Your task to perform on an android device: stop showing notifications on the lock screen Image 0: 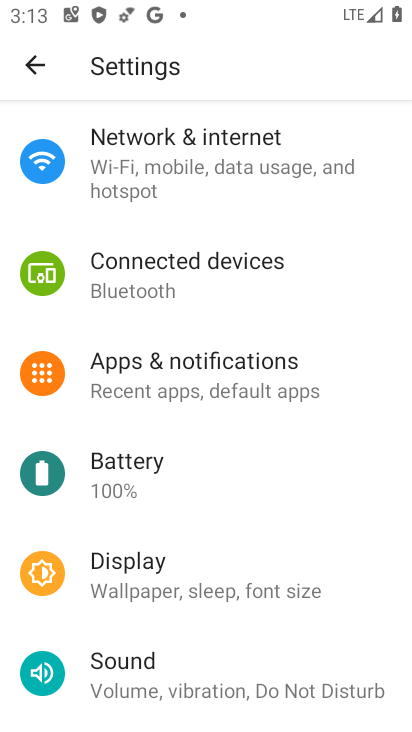
Step 0: press home button
Your task to perform on an android device: stop showing notifications on the lock screen Image 1: 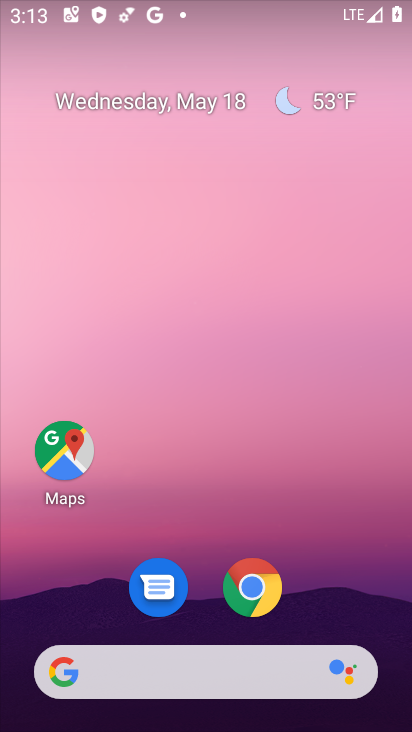
Step 1: drag from (189, 692) to (269, 220)
Your task to perform on an android device: stop showing notifications on the lock screen Image 2: 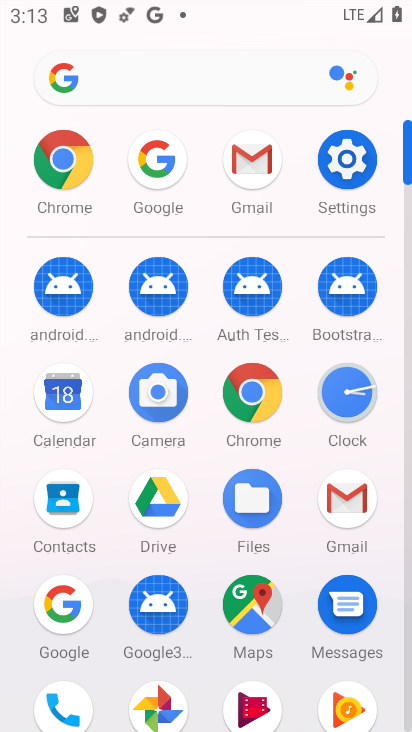
Step 2: click (367, 185)
Your task to perform on an android device: stop showing notifications on the lock screen Image 3: 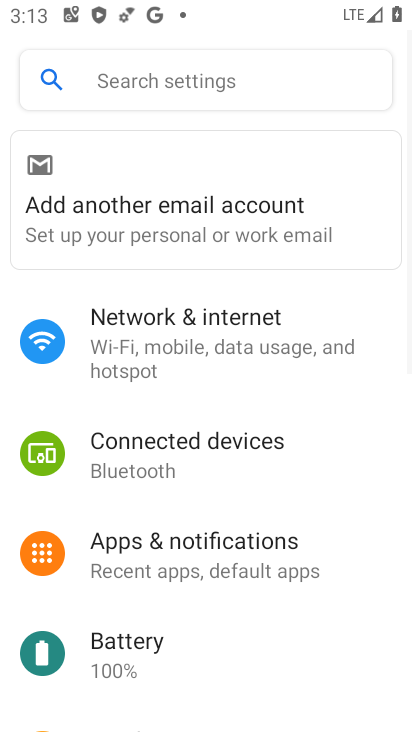
Step 3: click (208, 555)
Your task to perform on an android device: stop showing notifications on the lock screen Image 4: 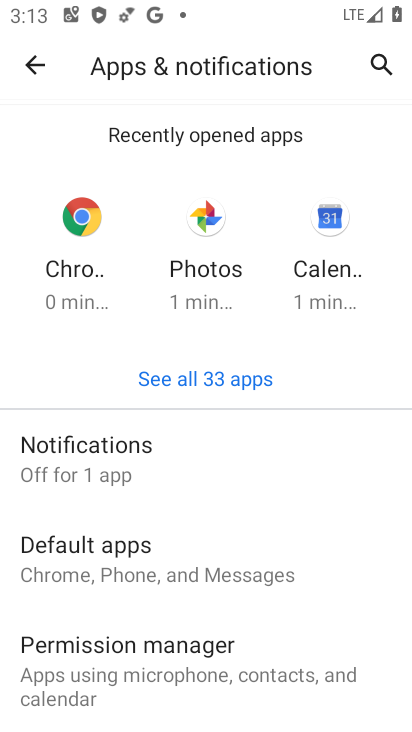
Step 4: click (180, 459)
Your task to perform on an android device: stop showing notifications on the lock screen Image 5: 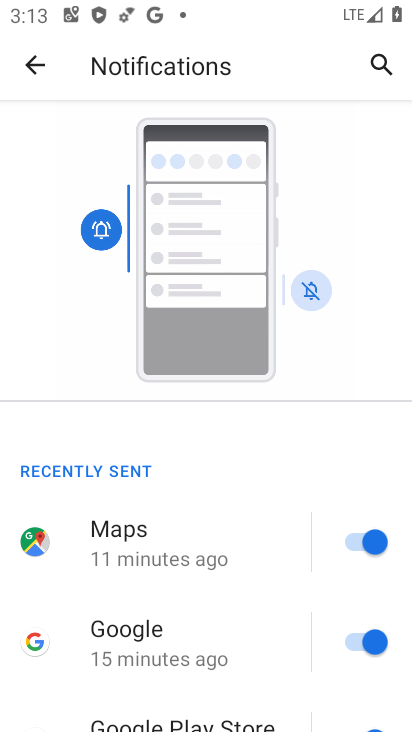
Step 5: drag from (196, 521) to (221, 263)
Your task to perform on an android device: stop showing notifications on the lock screen Image 6: 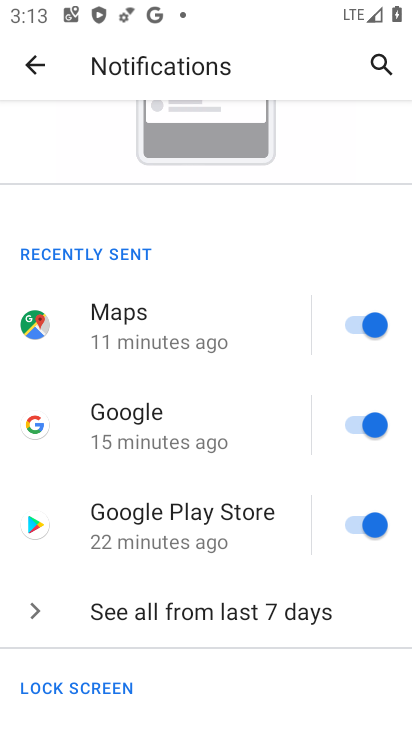
Step 6: drag from (176, 469) to (215, 228)
Your task to perform on an android device: stop showing notifications on the lock screen Image 7: 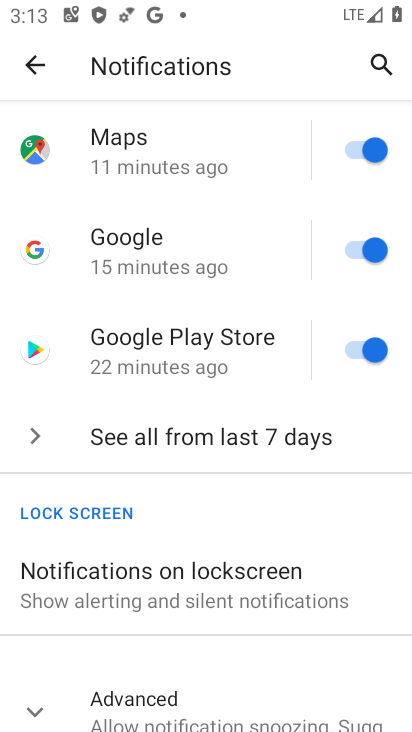
Step 7: click (164, 600)
Your task to perform on an android device: stop showing notifications on the lock screen Image 8: 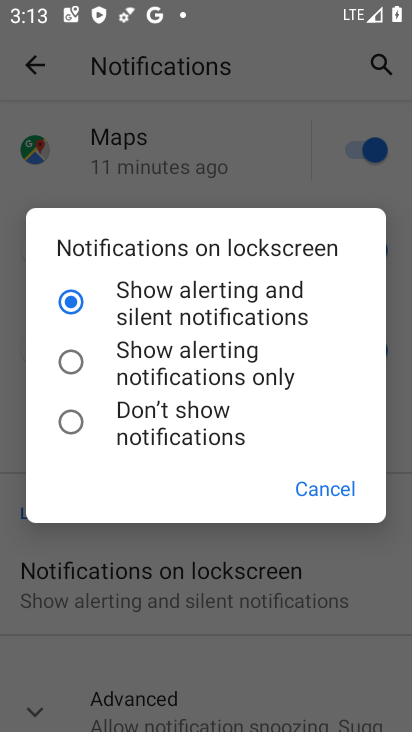
Step 8: click (59, 408)
Your task to perform on an android device: stop showing notifications on the lock screen Image 9: 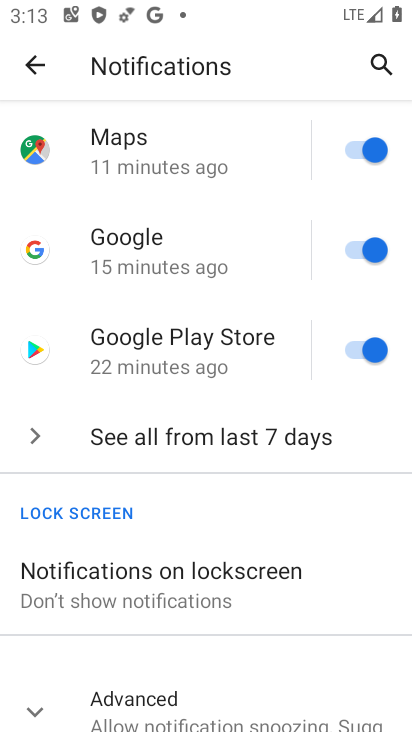
Step 9: task complete